Your task to perform on an android device: install app "Microsoft Outlook" Image 0: 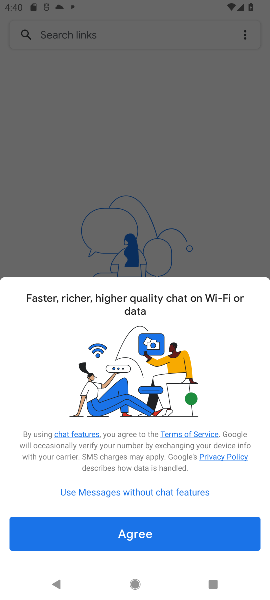
Step 0: press home button
Your task to perform on an android device: install app "Microsoft Outlook" Image 1: 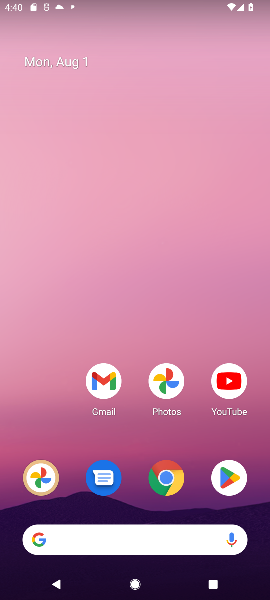
Step 1: click (239, 473)
Your task to perform on an android device: install app "Microsoft Outlook" Image 2: 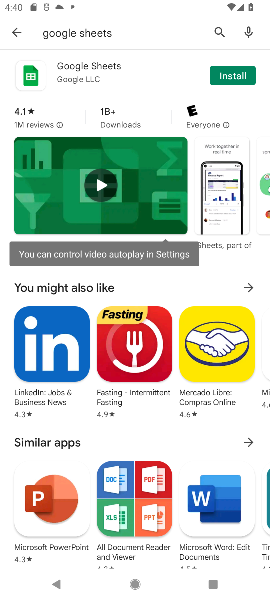
Step 2: click (214, 35)
Your task to perform on an android device: install app "Microsoft Outlook" Image 3: 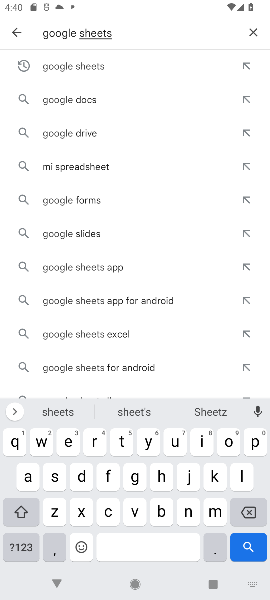
Step 3: click (257, 30)
Your task to perform on an android device: install app "Microsoft Outlook" Image 4: 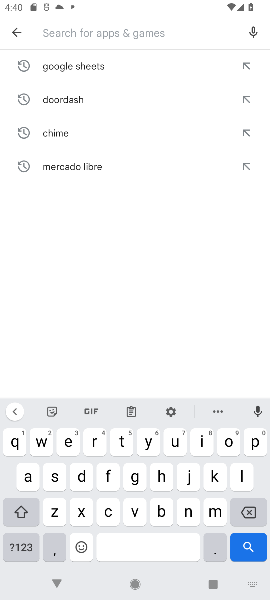
Step 4: click (234, 440)
Your task to perform on an android device: install app "Microsoft Outlook" Image 5: 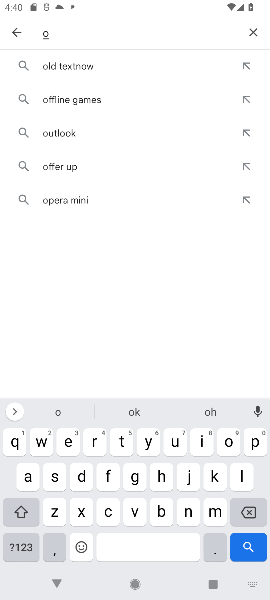
Step 5: click (73, 133)
Your task to perform on an android device: install app "Microsoft Outlook" Image 6: 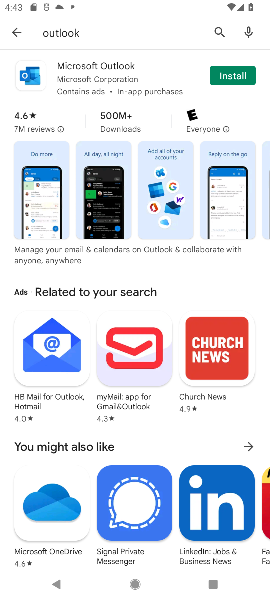
Step 6: click (226, 64)
Your task to perform on an android device: install app "Microsoft Outlook" Image 7: 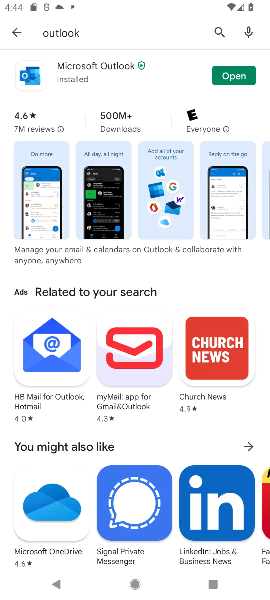
Step 7: task complete